Your task to perform on an android device: What's the weather going to be tomorrow? Image 0: 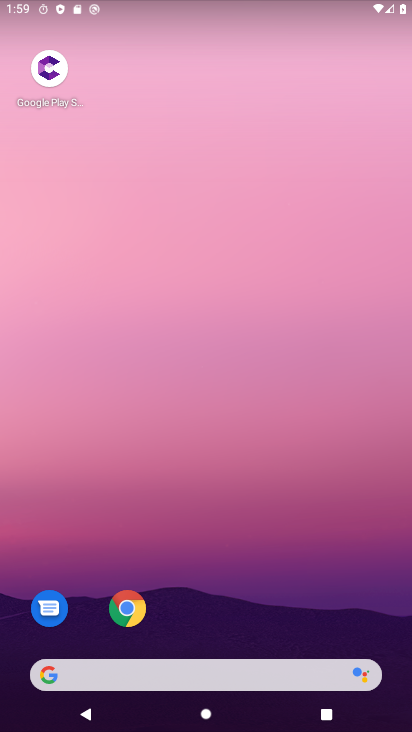
Step 0: drag from (271, 672) to (307, 337)
Your task to perform on an android device: What's the weather going to be tomorrow? Image 1: 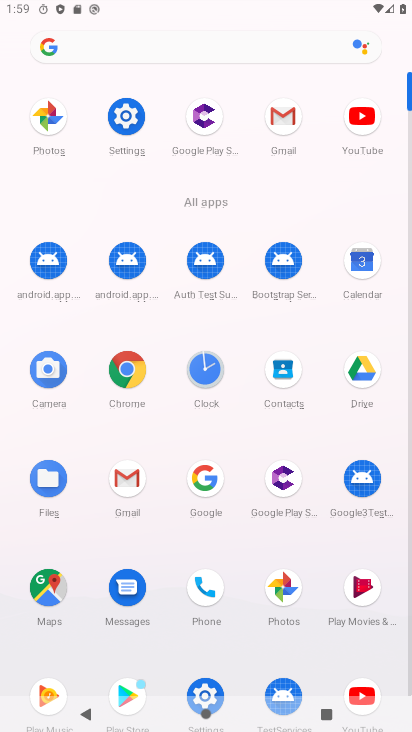
Step 1: click (196, 479)
Your task to perform on an android device: What's the weather going to be tomorrow? Image 2: 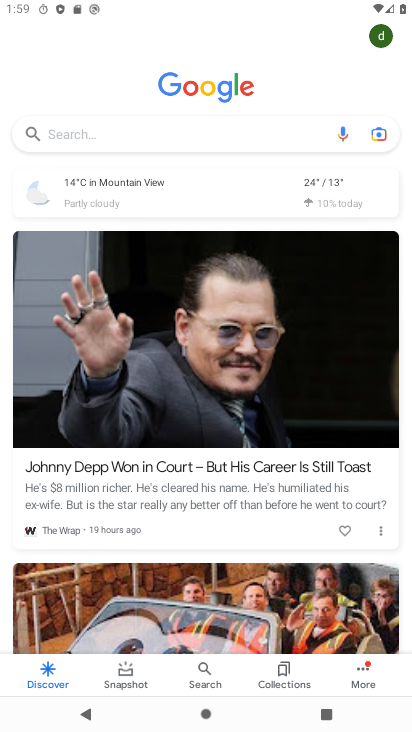
Step 2: click (44, 179)
Your task to perform on an android device: What's the weather going to be tomorrow? Image 3: 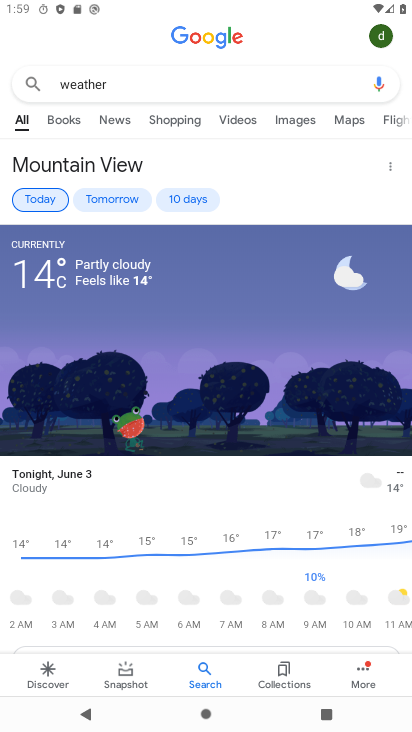
Step 3: click (93, 202)
Your task to perform on an android device: What's the weather going to be tomorrow? Image 4: 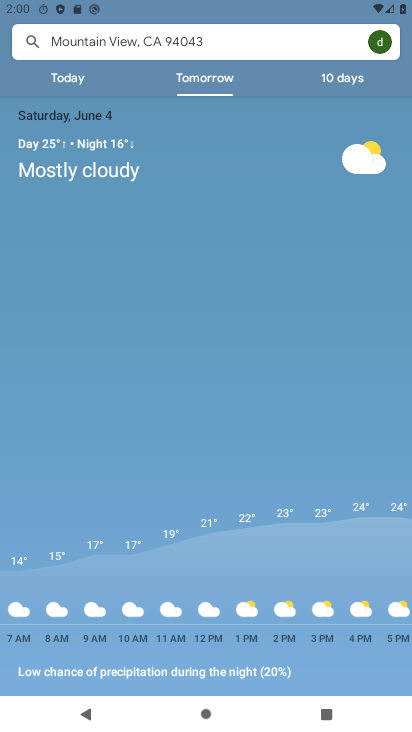
Step 4: task complete